Your task to perform on an android device: set the stopwatch Image 0: 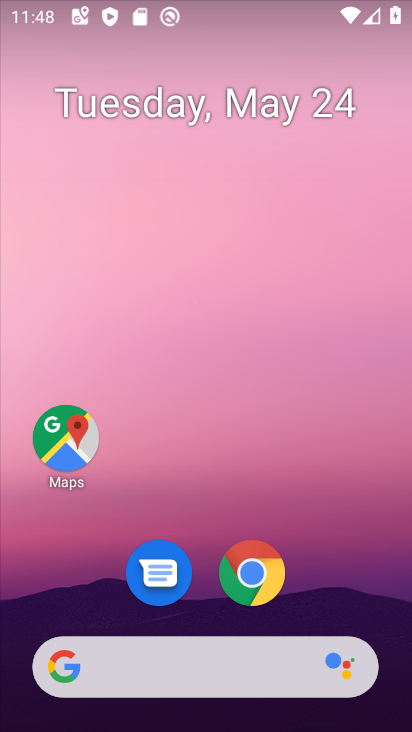
Step 0: drag from (343, 592) to (245, 14)
Your task to perform on an android device: set the stopwatch Image 1: 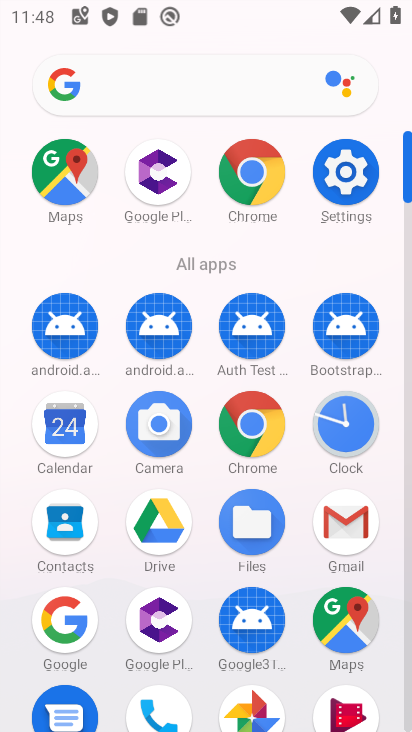
Step 1: drag from (15, 537) to (0, 198)
Your task to perform on an android device: set the stopwatch Image 2: 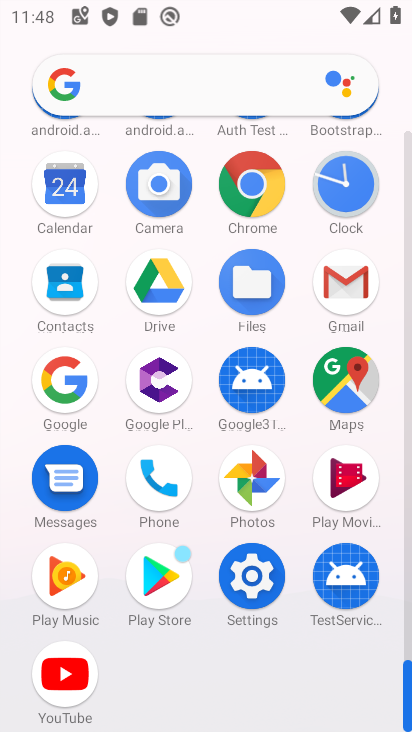
Step 2: click (343, 181)
Your task to perform on an android device: set the stopwatch Image 3: 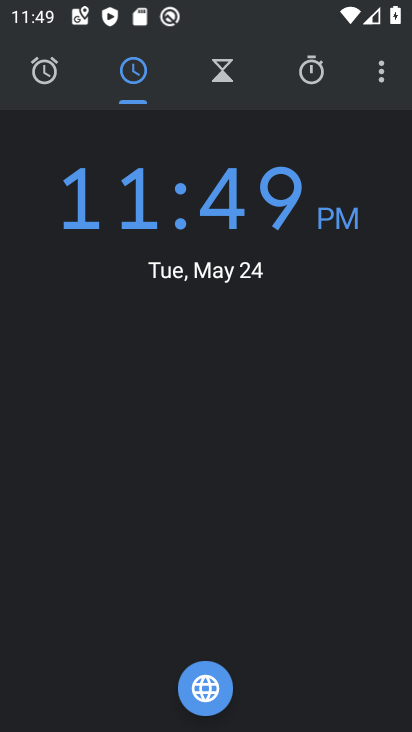
Step 3: click (320, 65)
Your task to perform on an android device: set the stopwatch Image 4: 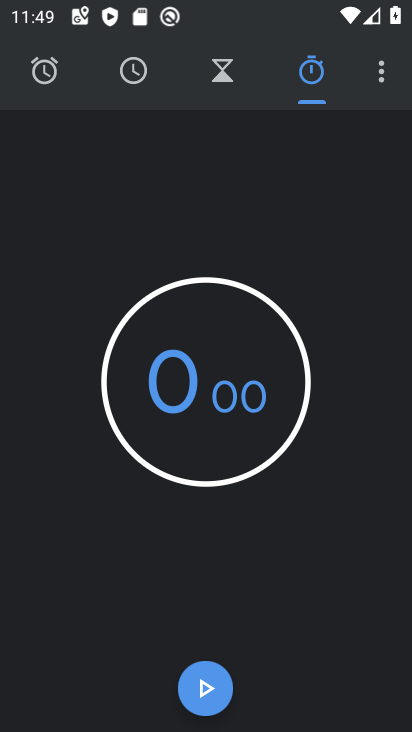
Step 4: click (205, 695)
Your task to perform on an android device: set the stopwatch Image 5: 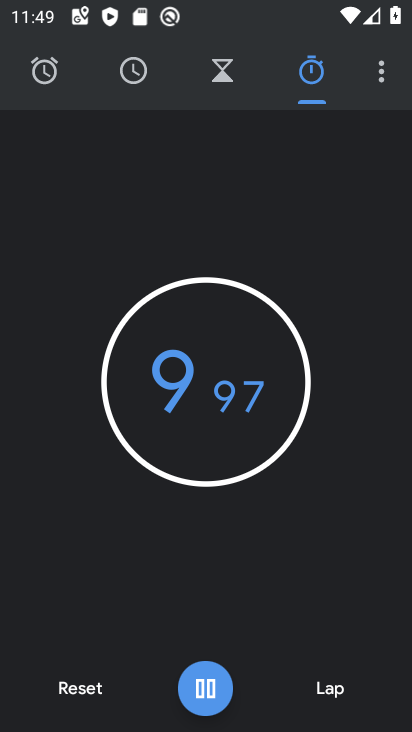
Step 5: task complete